Your task to perform on an android device: Open sound settings Image 0: 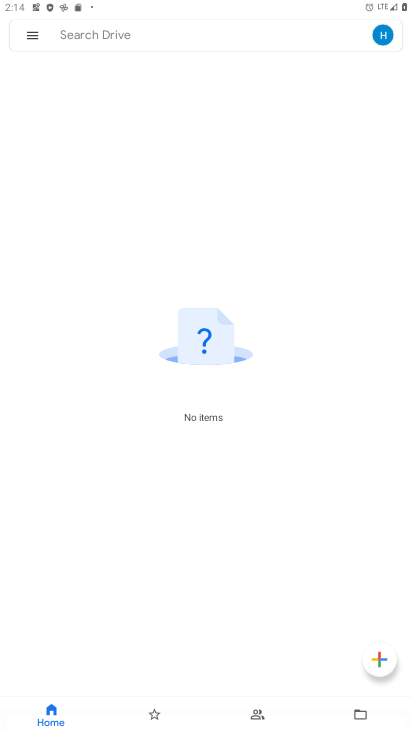
Step 0: press home button
Your task to perform on an android device: Open sound settings Image 1: 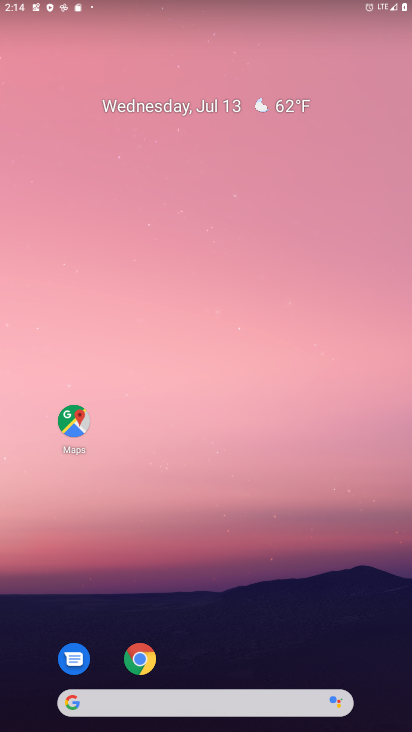
Step 1: drag from (189, 726) to (188, 679)
Your task to perform on an android device: Open sound settings Image 2: 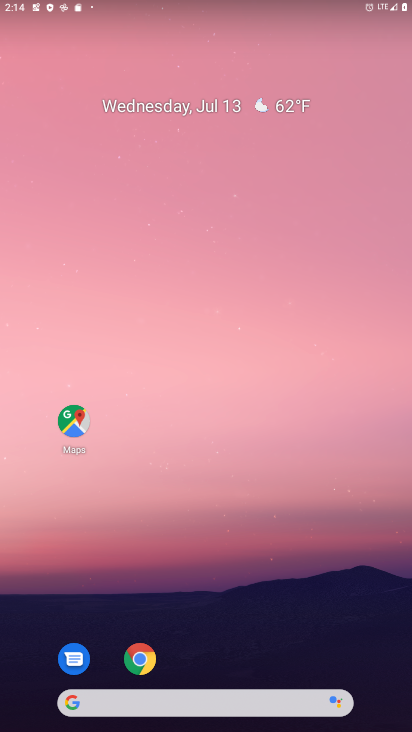
Step 2: drag from (175, 201) to (175, 166)
Your task to perform on an android device: Open sound settings Image 3: 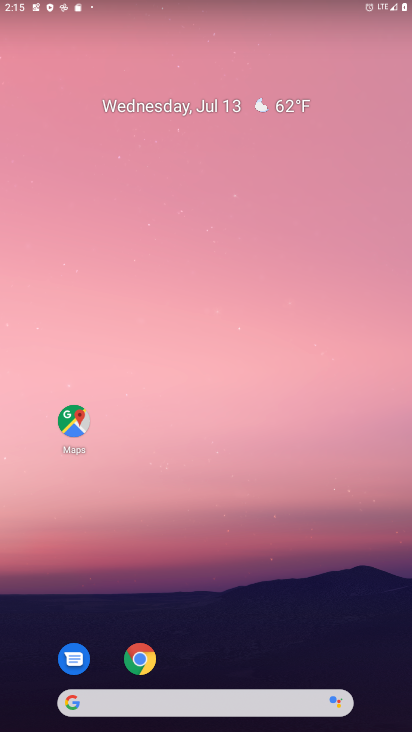
Step 3: drag from (244, 724) to (222, 115)
Your task to perform on an android device: Open sound settings Image 4: 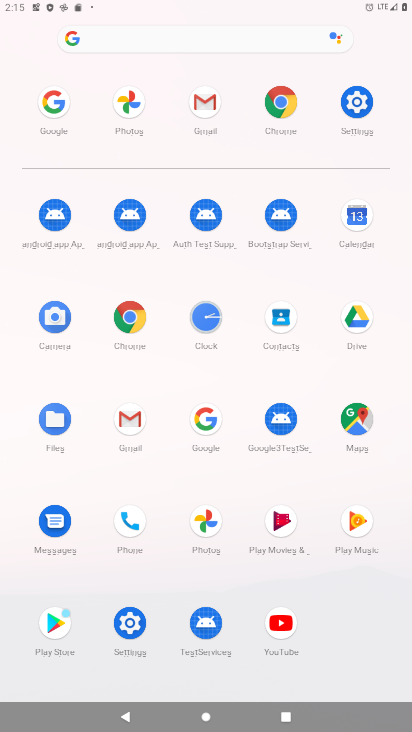
Step 4: click (351, 110)
Your task to perform on an android device: Open sound settings Image 5: 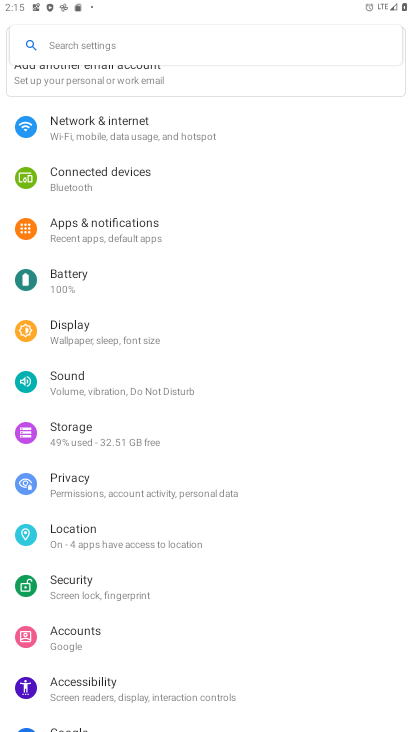
Step 5: click (69, 385)
Your task to perform on an android device: Open sound settings Image 6: 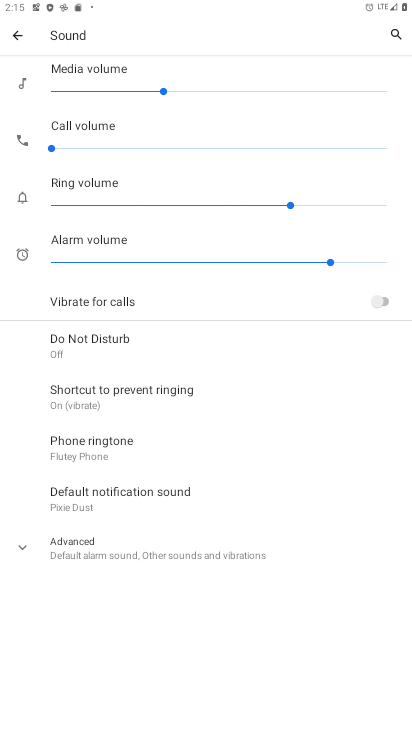
Step 6: task complete